Your task to perform on an android device: set default search engine in the chrome app Image 0: 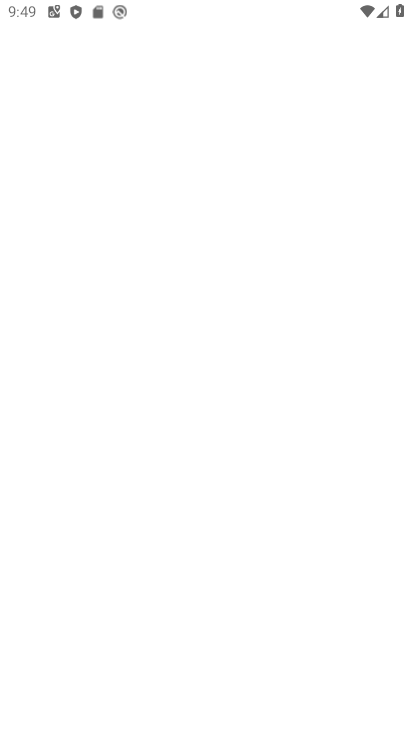
Step 0: drag from (216, 621) to (287, 44)
Your task to perform on an android device: set default search engine in the chrome app Image 1: 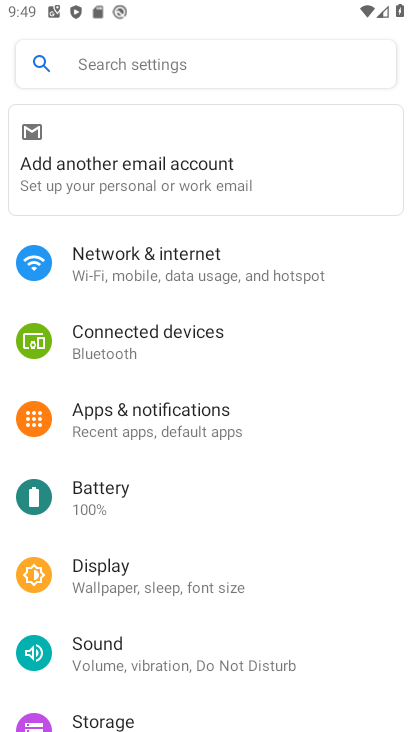
Step 1: press home button
Your task to perform on an android device: set default search engine in the chrome app Image 2: 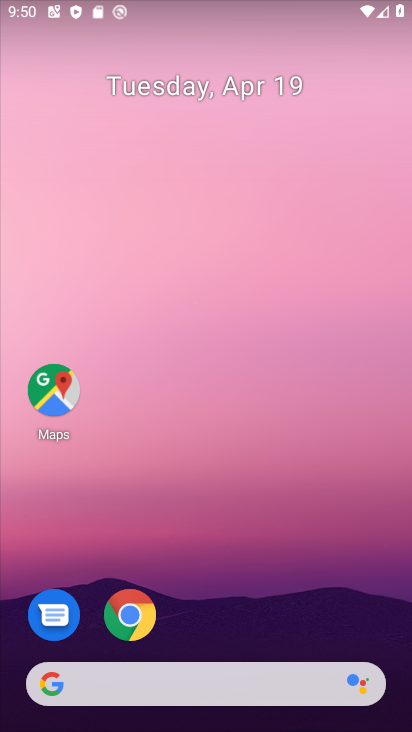
Step 2: drag from (185, 611) to (193, 210)
Your task to perform on an android device: set default search engine in the chrome app Image 3: 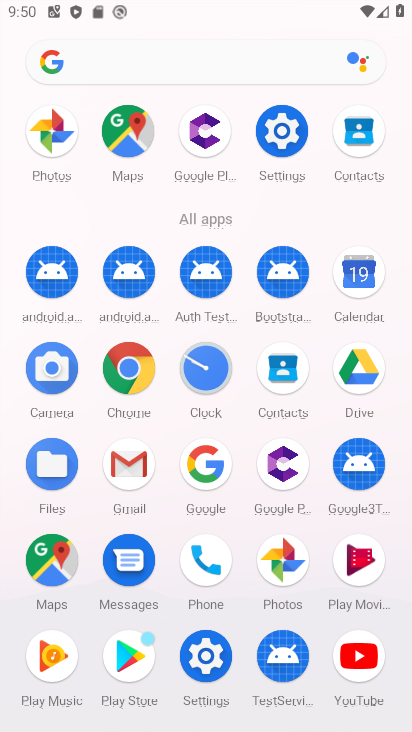
Step 3: drag from (243, 618) to (262, 195)
Your task to perform on an android device: set default search engine in the chrome app Image 4: 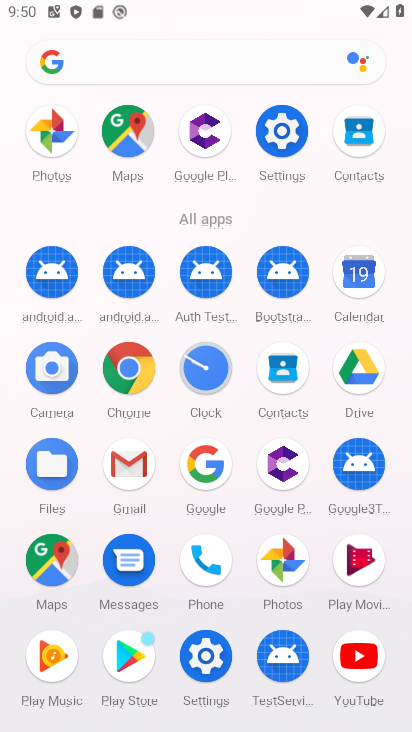
Step 4: click (122, 363)
Your task to perform on an android device: set default search engine in the chrome app Image 5: 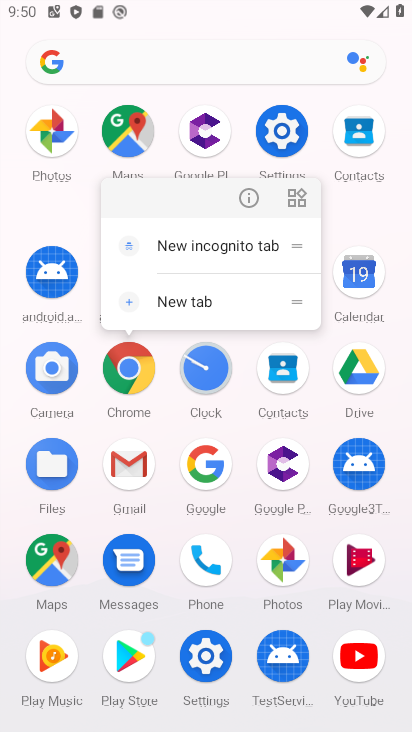
Step 5: click (256, 206)
Your task to perform on an android device: set default search engine in the chrome app Image 6: 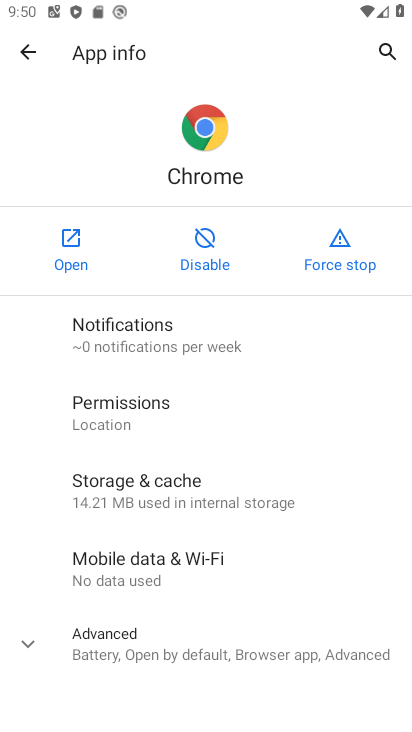
Step 6: click (74, 235)
Your task to perform on an android device: set default search engine in the chrome app Image 7: 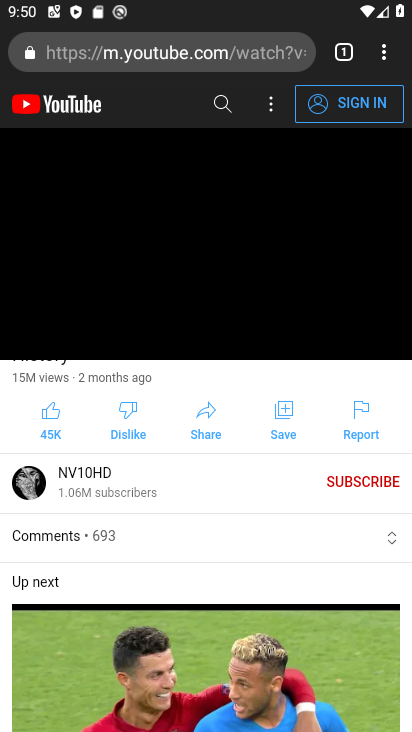
Step 7: click (387, 49)
Your task to perform on an android device: set default search engine in the chrome app Image 8: 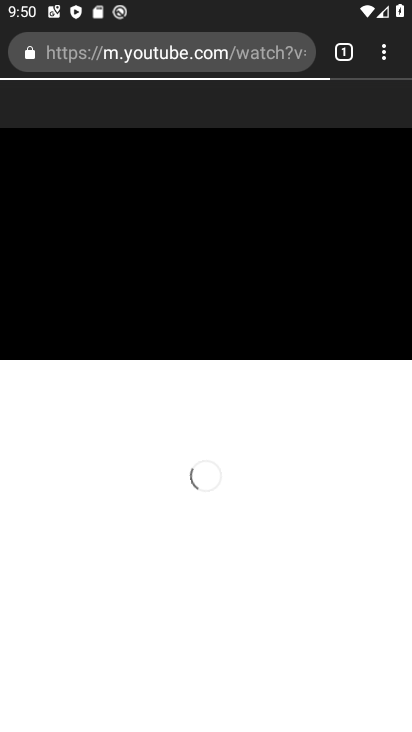
Step 8: drag from (387, 48) to (229, 586)
Your task to perform on an android device: set default search engine in the chrome app Image 9: 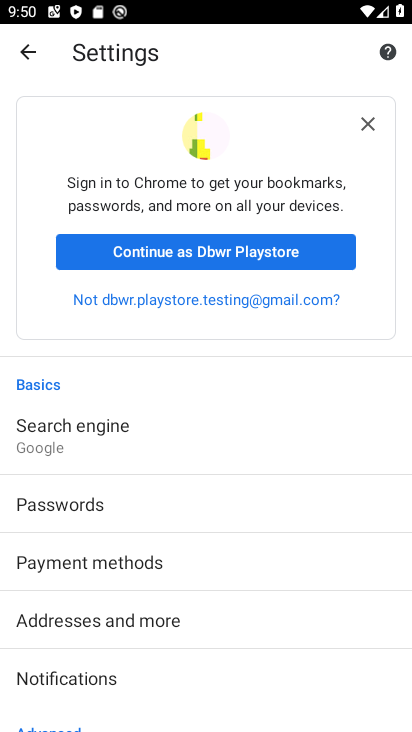
Step 9: click (243, 253)
Your task to perform on an android device: set default search engine in the chrome app Image 10: 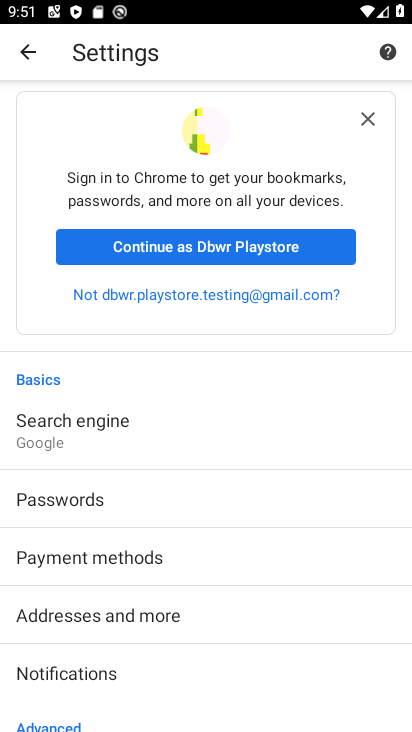
Step 10: drag from (193, 466) to (255, 181)
Your task to perform on an android device: set default search engine in the chrome app Image 11: 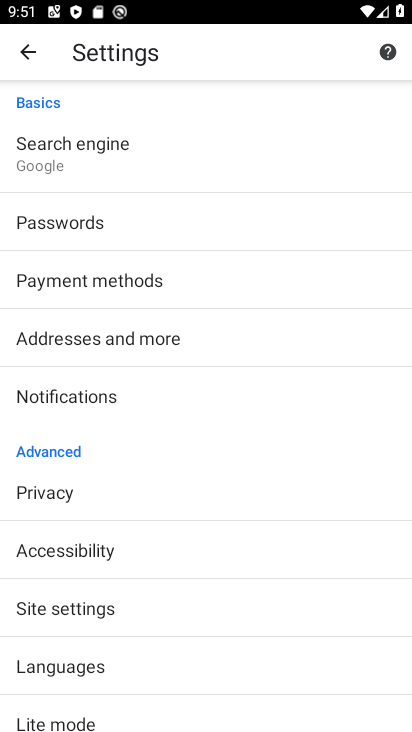
Step 11: click (132, 140)
Your task to perform on an android device: set default search engine in the chrome app Image 12: 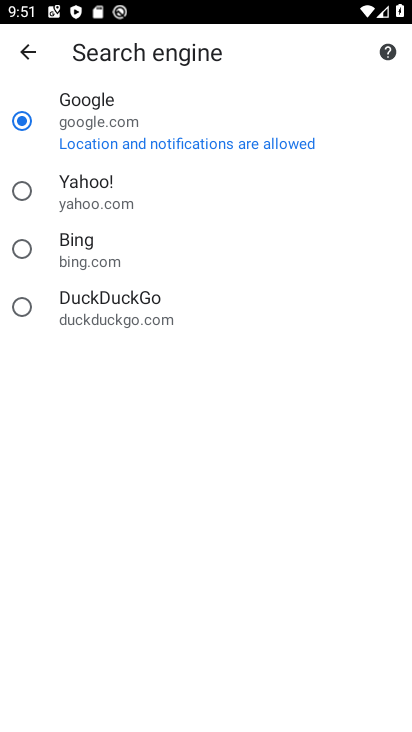
Step 12: task complete